Your task to perform on an android device: uninstall "Airtel Thanks" Image 0: 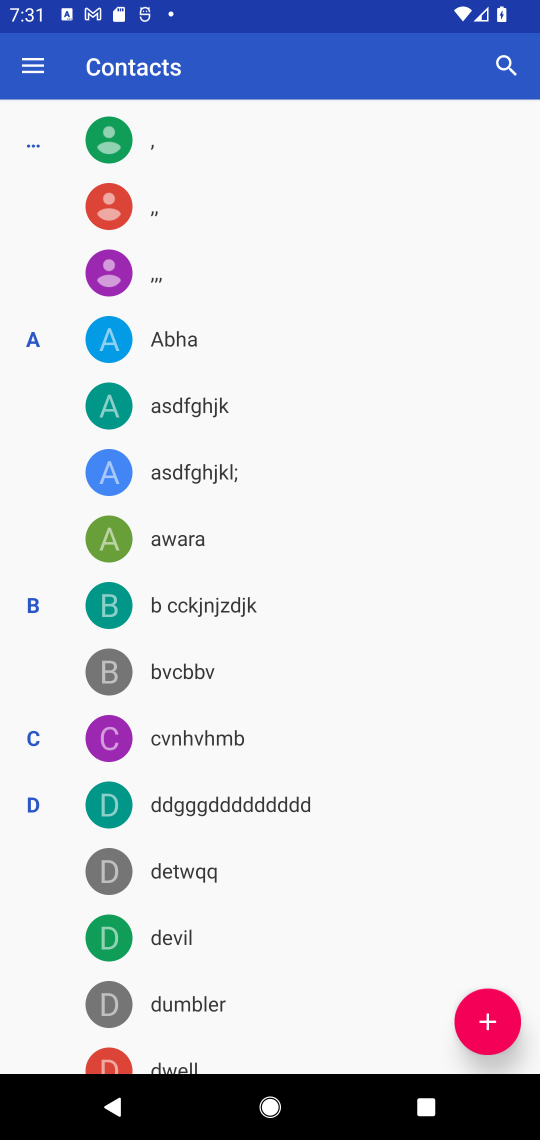
Step 0: press back button
Your task to perform on an android device: uninstall "Airtel Thanks" Image 1: 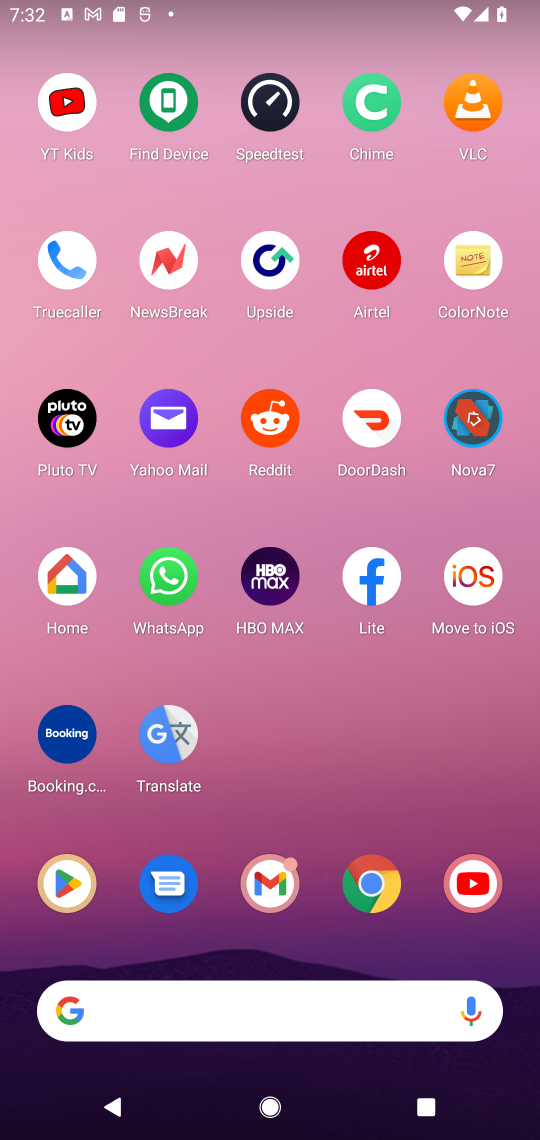
Step 1: click (70, 877)
Your task to perform on an android device: uninstall "Airtel Thanks" Image 2: 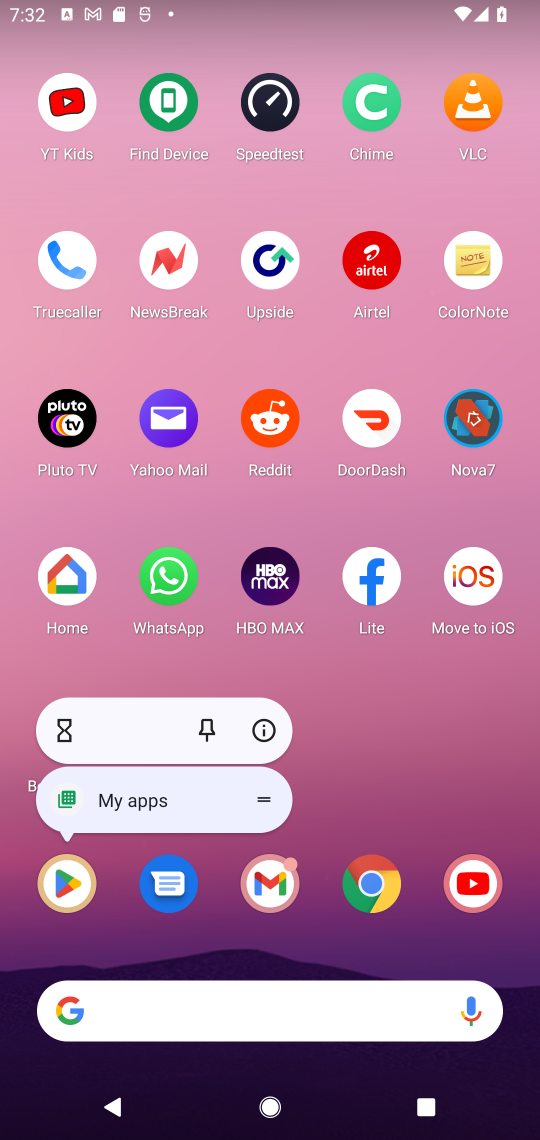
Step 2: click (70, 883)
Your task to perform on an android device: uninstall "Airtel Thanks" Image 3: 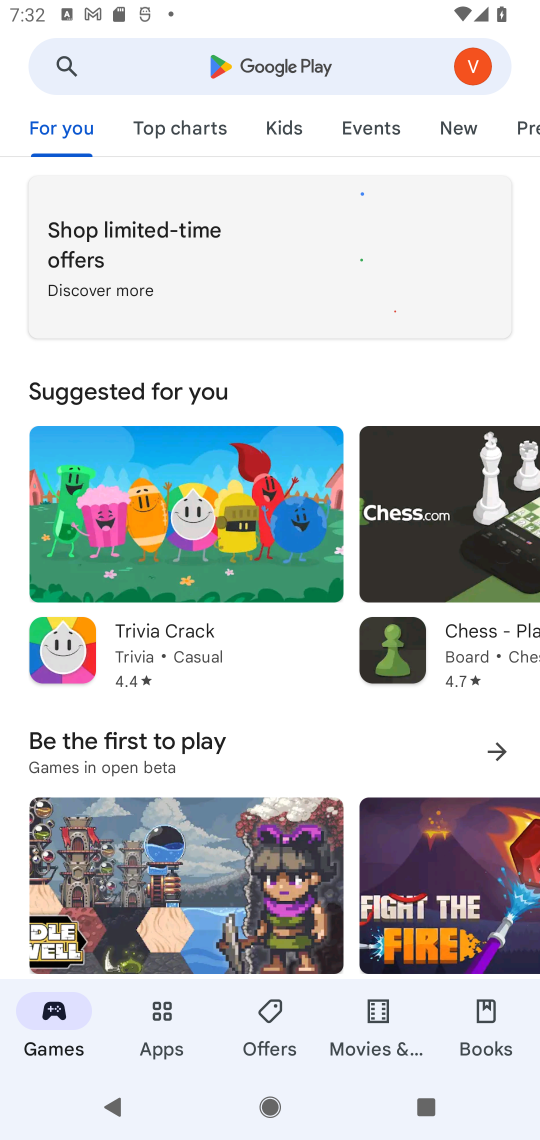
Step 3: click (269, 72)
Your task to perform on an android device: uninstall "Airtel Thanks" Image 4: 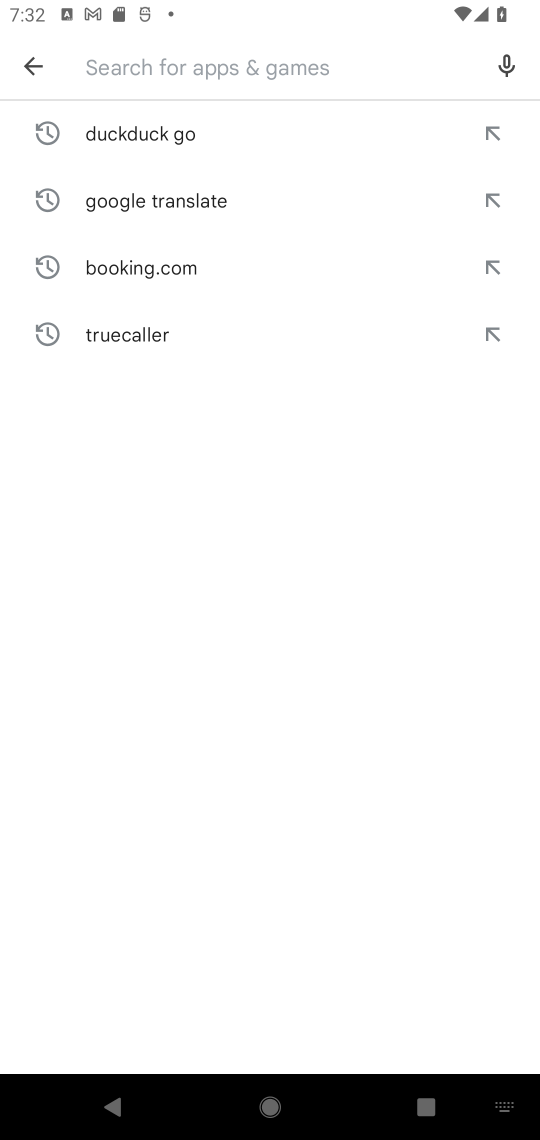
Step 4: type "airtel thanks"
Your task to perform on an android device: uninstall "Airtel Thanks" Image 5: 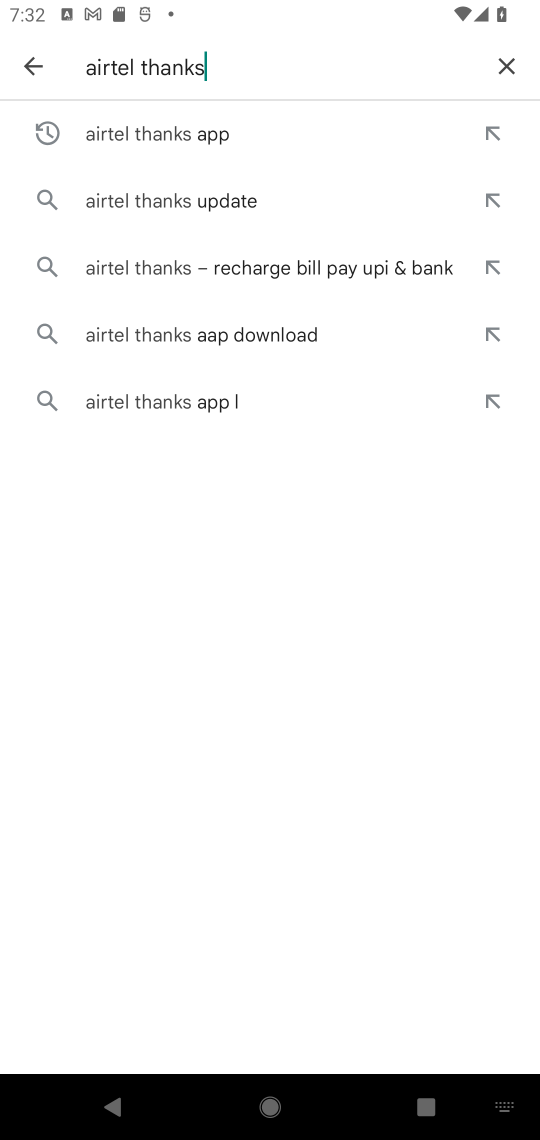
Step 5: click (201, 136)
Your task to perform on an android device: uninstall "Airtel Thanks" Image 6: 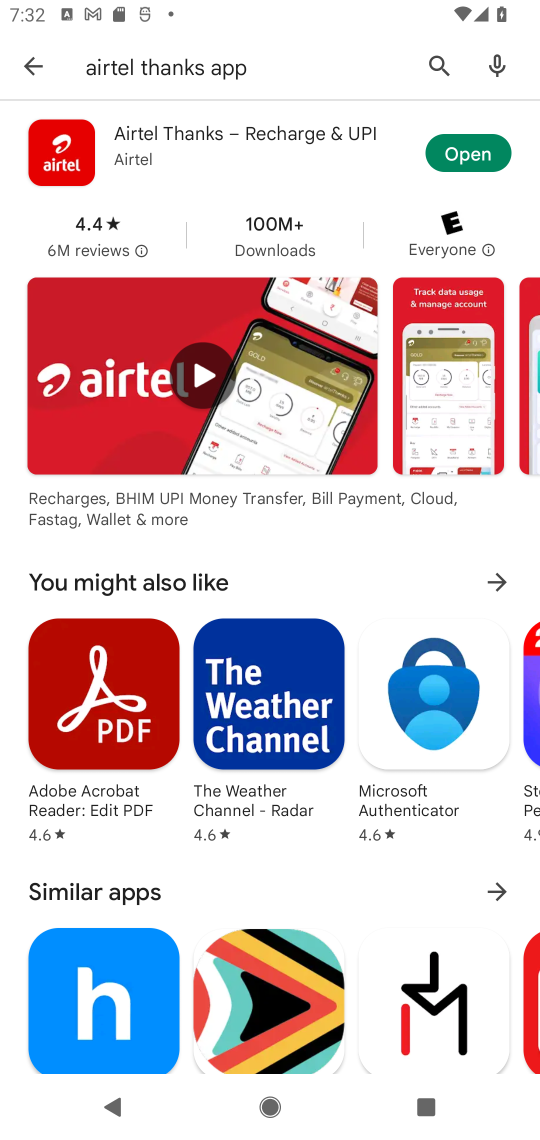
Step 6: click (154, 175)
Your task to perform on an android device: uninstall "Airtel Thanks" Image 7: 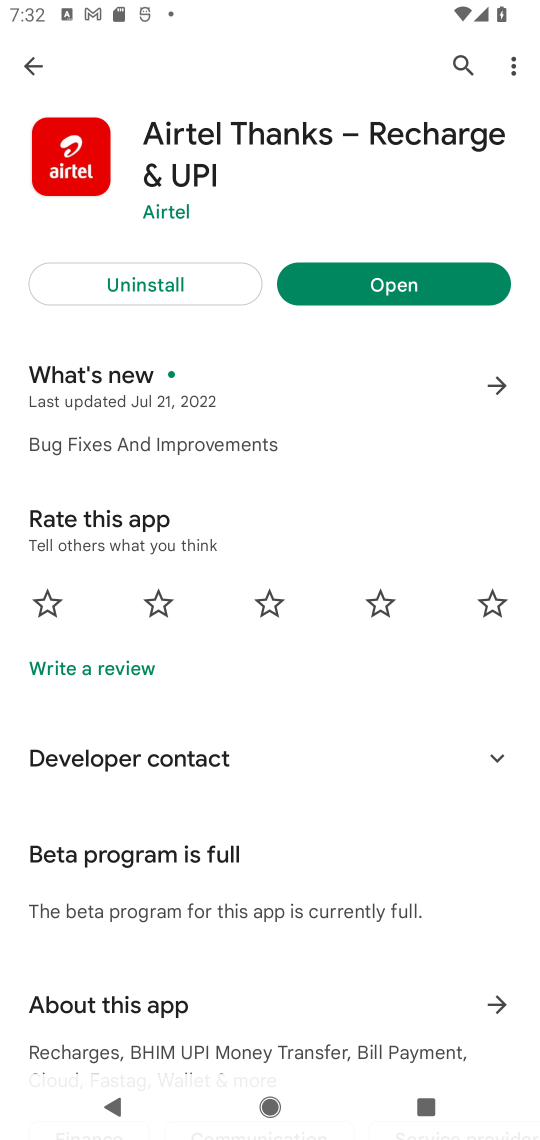
Step 7: click (125, 277)
Your task to perform on an android device: uninstall "Airtel Thanks" Image 8: 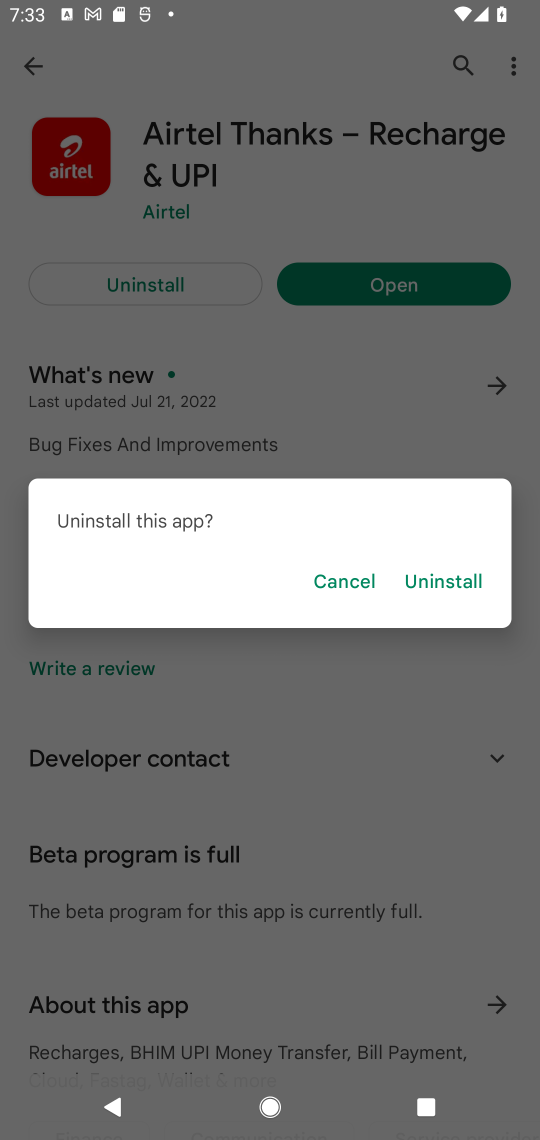
Step 8: click (448, 575)
Your task to perform on an android device: uninstall "Airtel Thanks" Image 9: 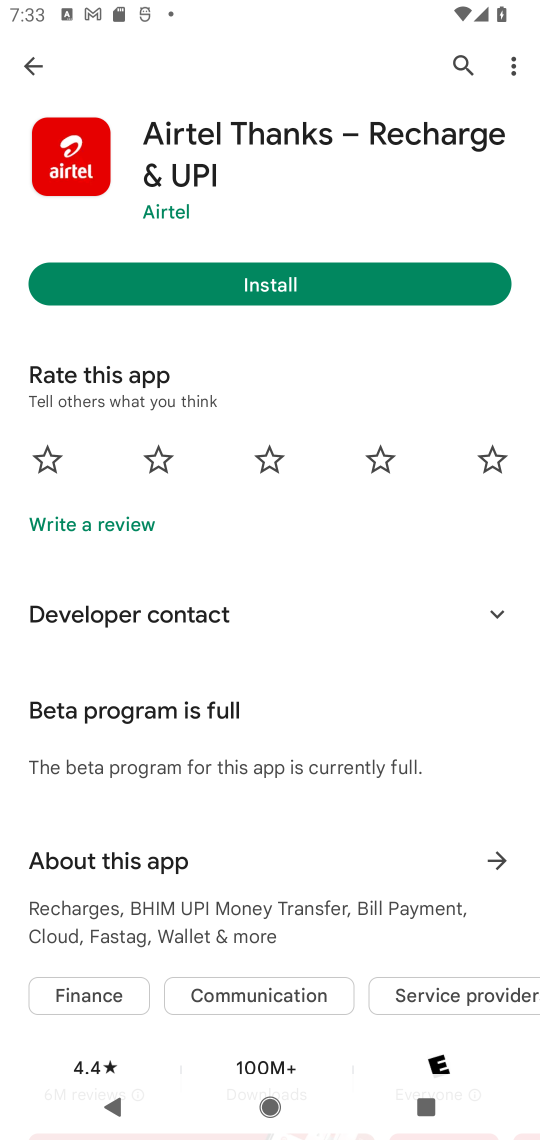
Step 9: task complete